Your task to perform on an android device: change text size in settings app Image 0: 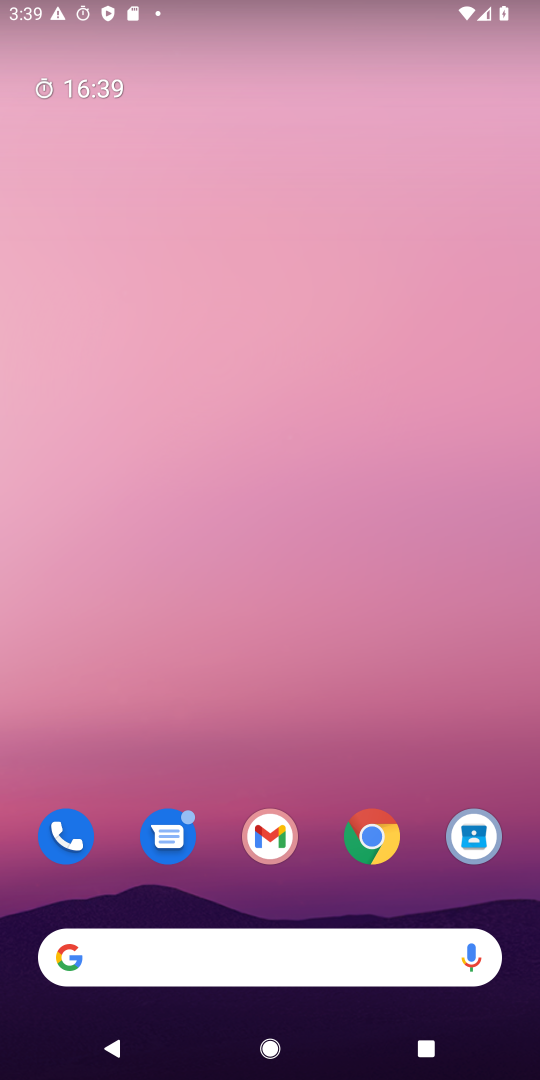
Step 0: drag from (275, 899) to (305, 312)
Your task to perform on an android device: change text size in settings app Image 1: 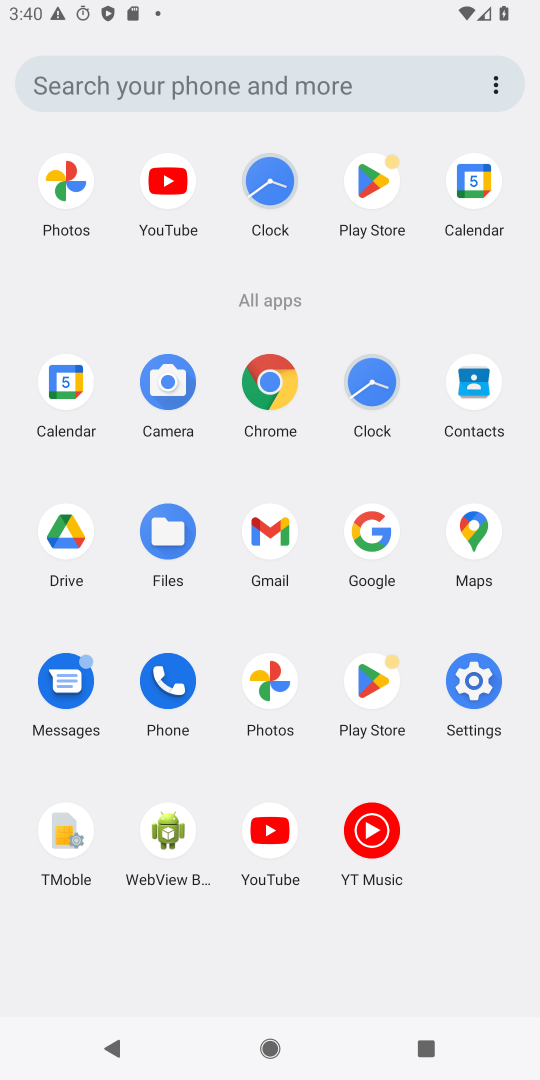
Step 1: click (461, 675)
Your task to perform on an android device: change text size in settings app Image 2: 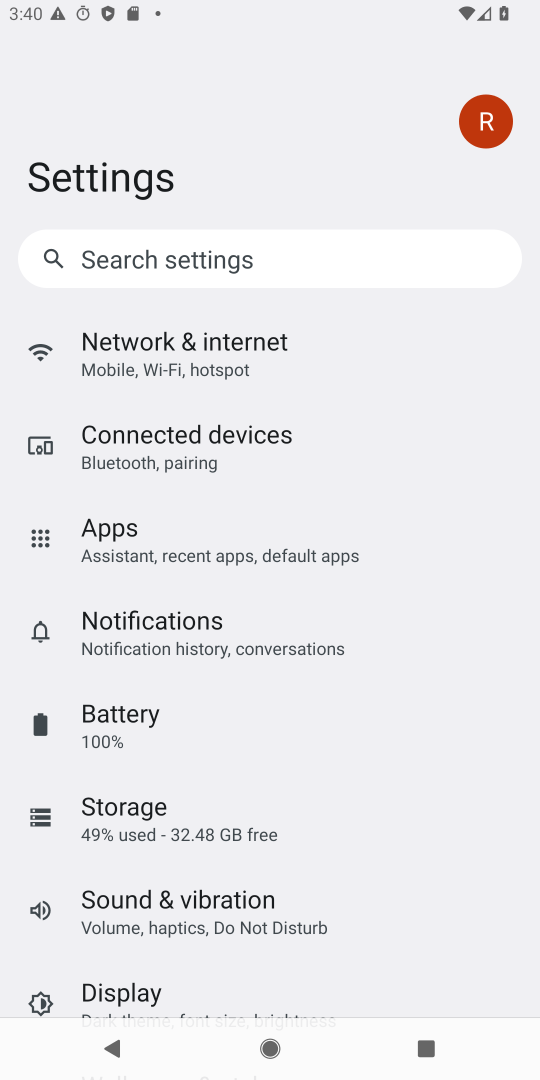
Step 2: click (139, 986)
Your task to perform on an android device: change text size in settings app Image 3: 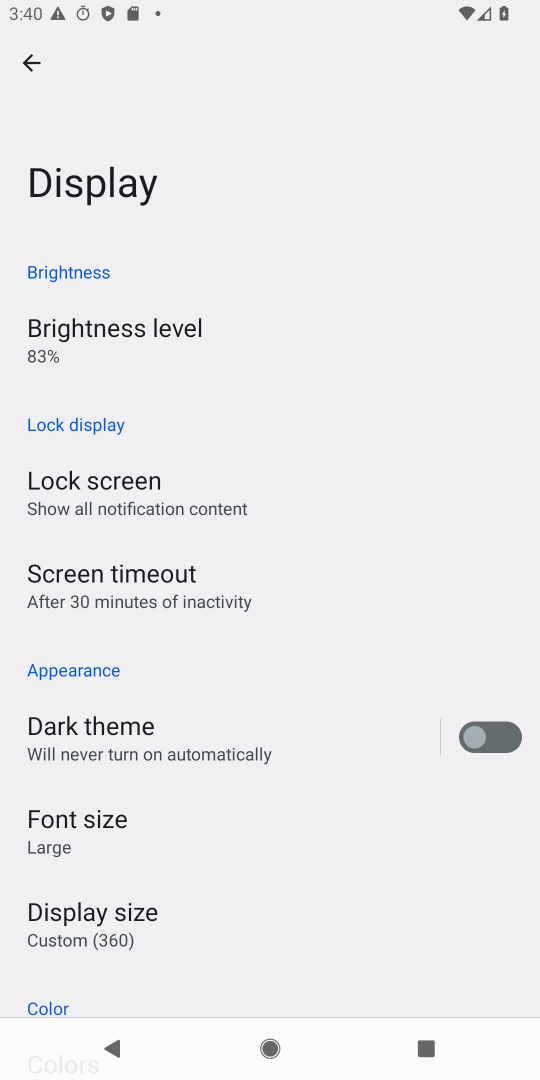
Step 3: drag from (97, 798) to (130, 561)
Your task to perform on an android device: change text size in settings app Image 4: 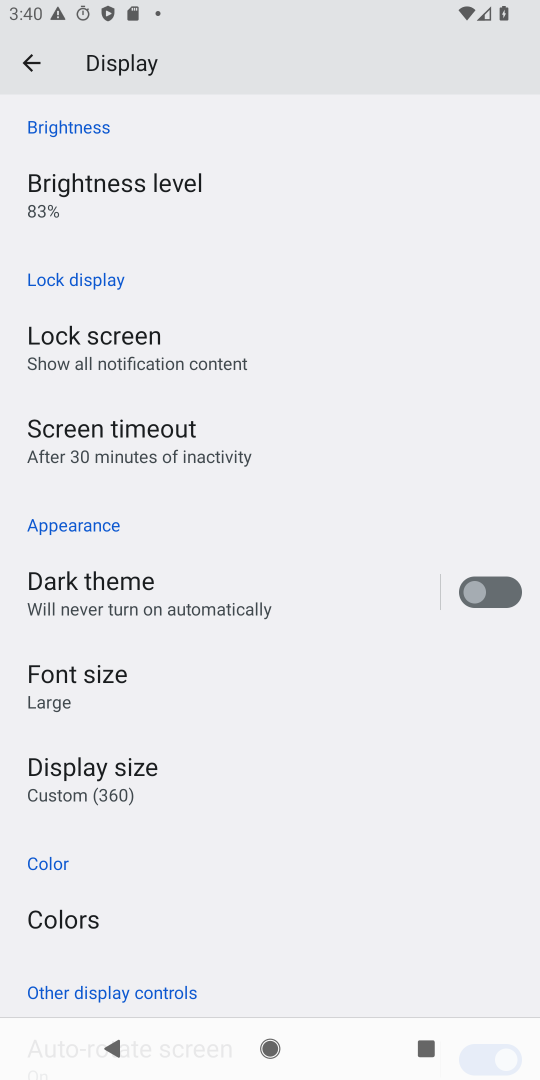
Step 4: click (86, 690)
Your task to perform on an android device: change text size in settings app Image 5: 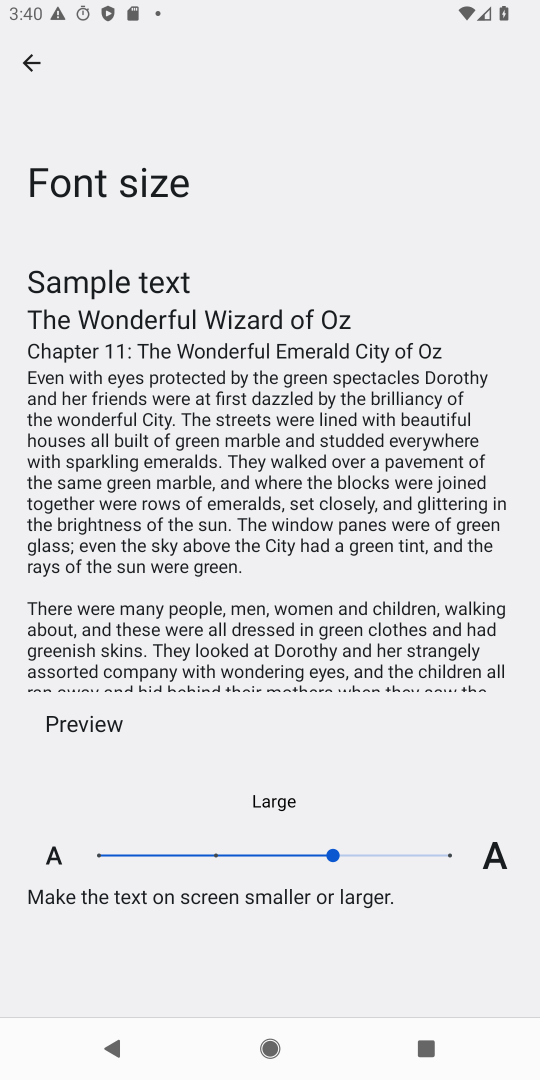
Step 5: click (214, 856)
Your task to perform on an android device: change text size in settings app Image 6: 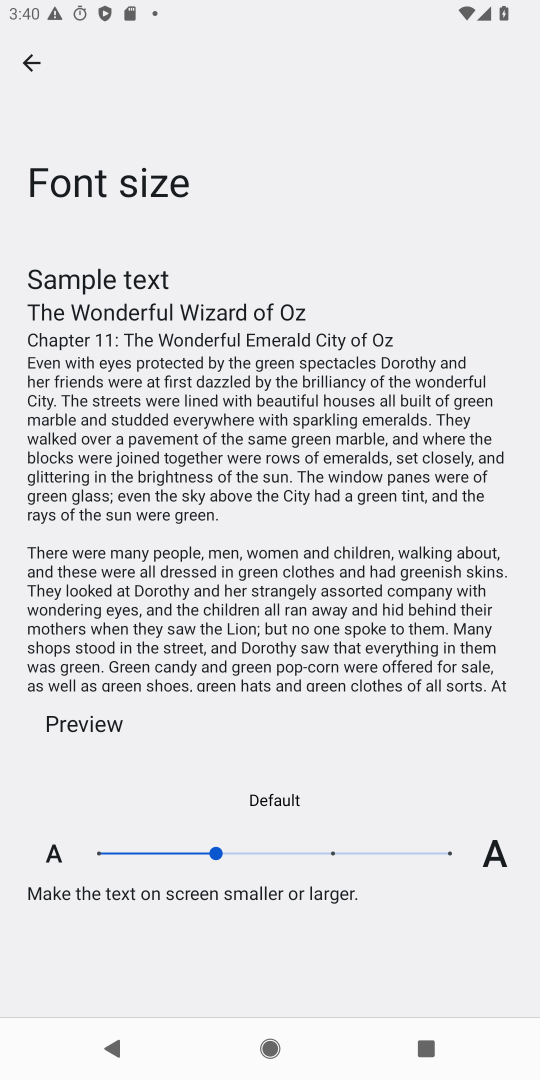
Step 6: task complete